Your task to perform on an android device: Empty the shopping cart on target. Search for "razer blade" on target, select the first entry, add it to the cart, then select checkout. Image 0: 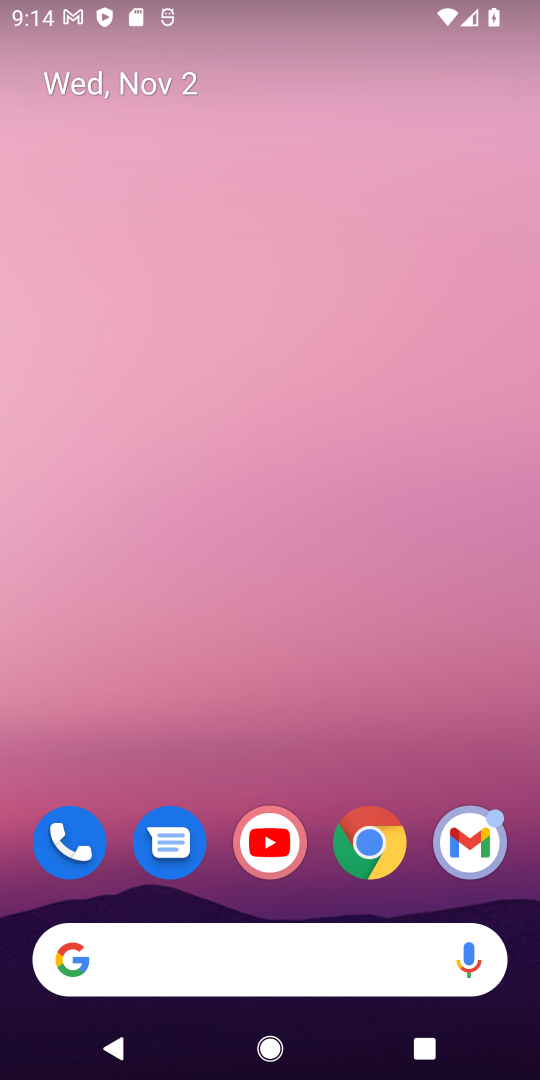
Step 0: drag from (208, 719) to (212, 130)
Your task to perform on an android device: Empty the shopping cart on target. Search for "razer blade" on target, select the first entry, add it to the cart, then select checkout. Image 1: 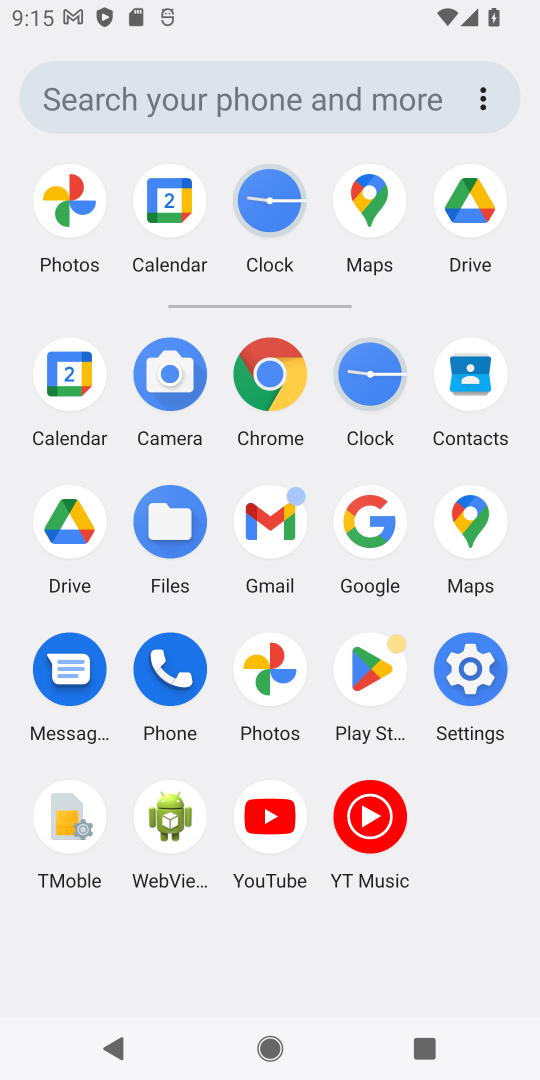
Step 1: click (364, 522)
Your task to perform on an android device: Empty the shopping cart on target. Search for "razer blade" on target, select the first entry, add it to the cart, then select checkout. Image 2: 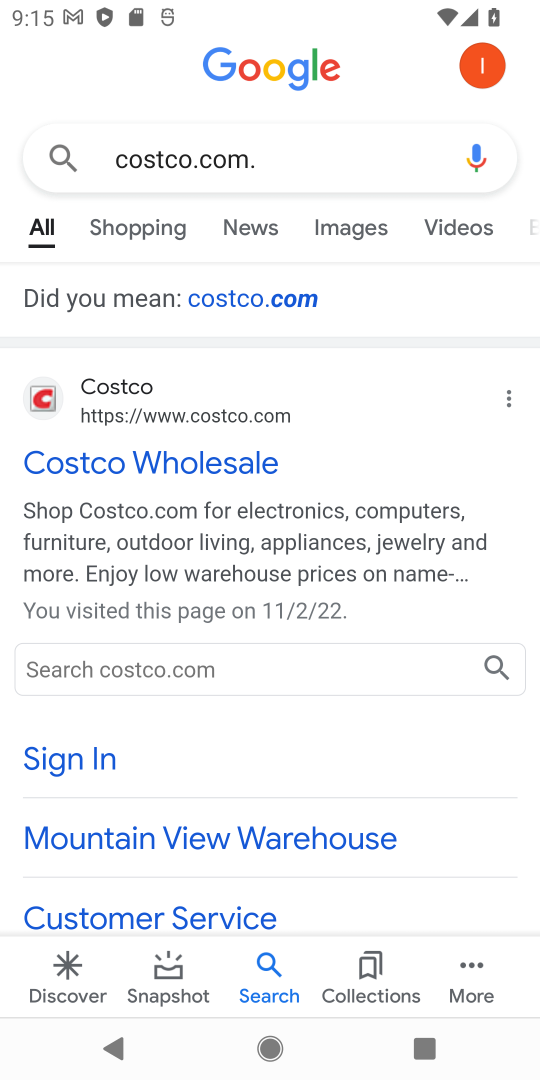
Step 2: click (364, 510)
Your task to perform on an android device: Empty the shopping cart on target. Search for "razer blade" on target, select the first entry, add it to the cart, then select checkout. Image 3: 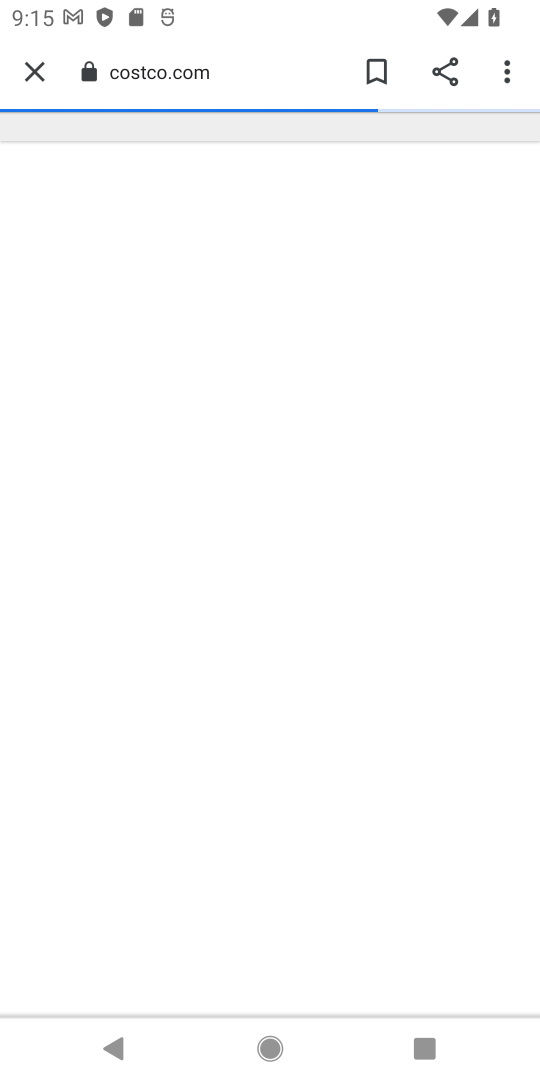
Step 3: click (201, 160)
Your task to perform on an android device: Empty the shopping cart on target. Search for "razer blade" on target, select the first entry, add it to the cart, then select checkout. Image 4: 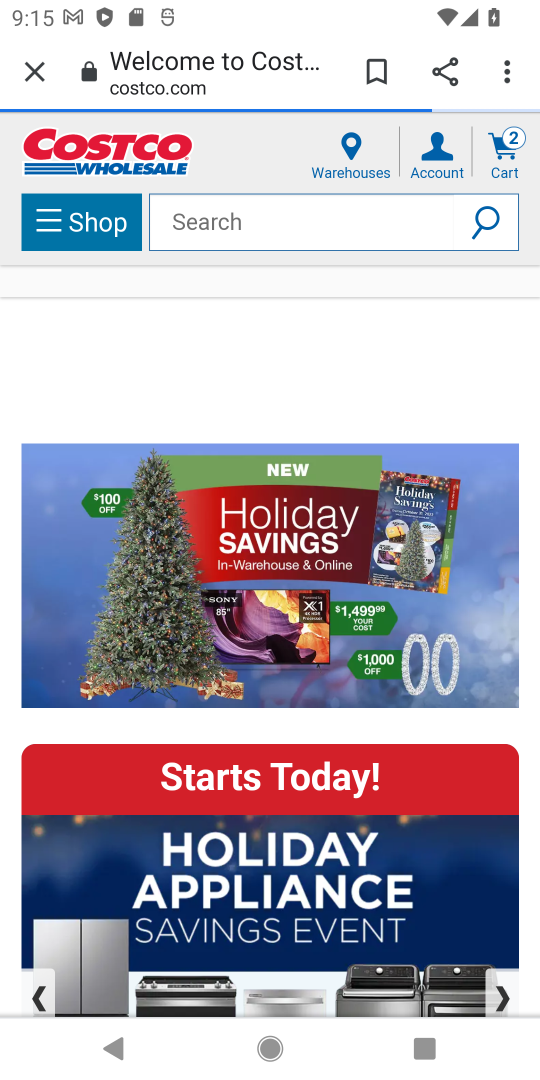
Step 4: press back button
Your task to perform on an android device: Empty the shopping cart on target. Search for "razer blade" on target, select the first entry, add it to the cart, then select checkout. Image 5: 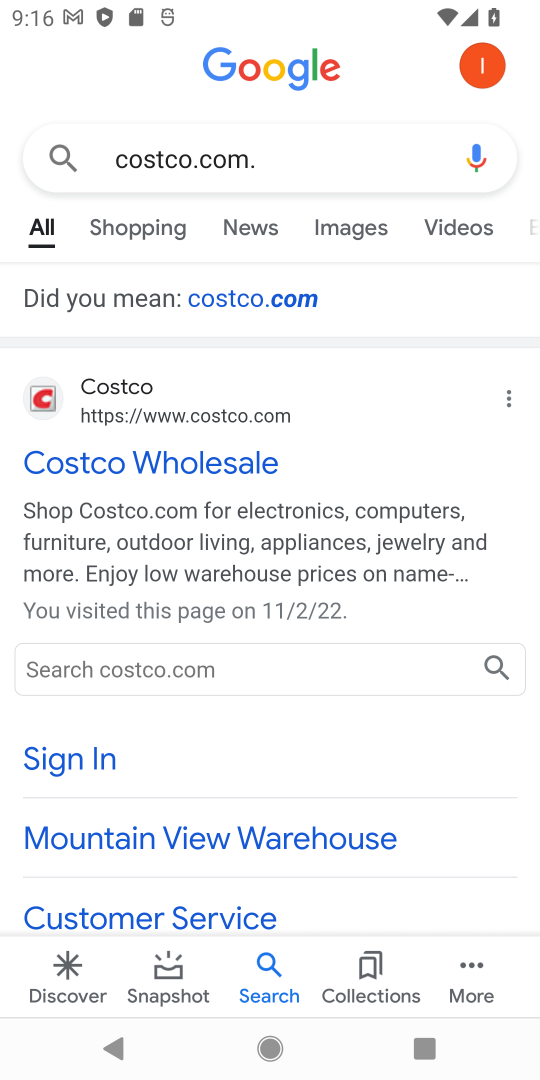
Step 5: click (202, 143)
Your task to perform on an android device: Empty the shopping cart on target. Search for "razer blade" on target, select the first entry, add it to the cart, then select checkout. Image 6: 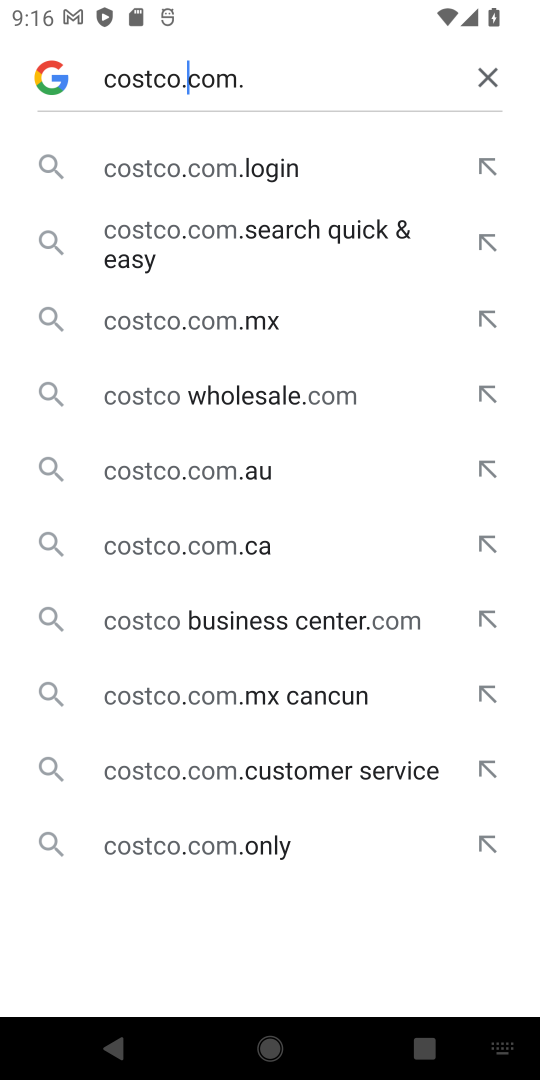
Step 6: click (487, 79)
Your task to perform on an android device: Empty the shopping cart on target. Search for "razer blade" on target, select the first entry, add it to the cart, then select checkout. Image 7: 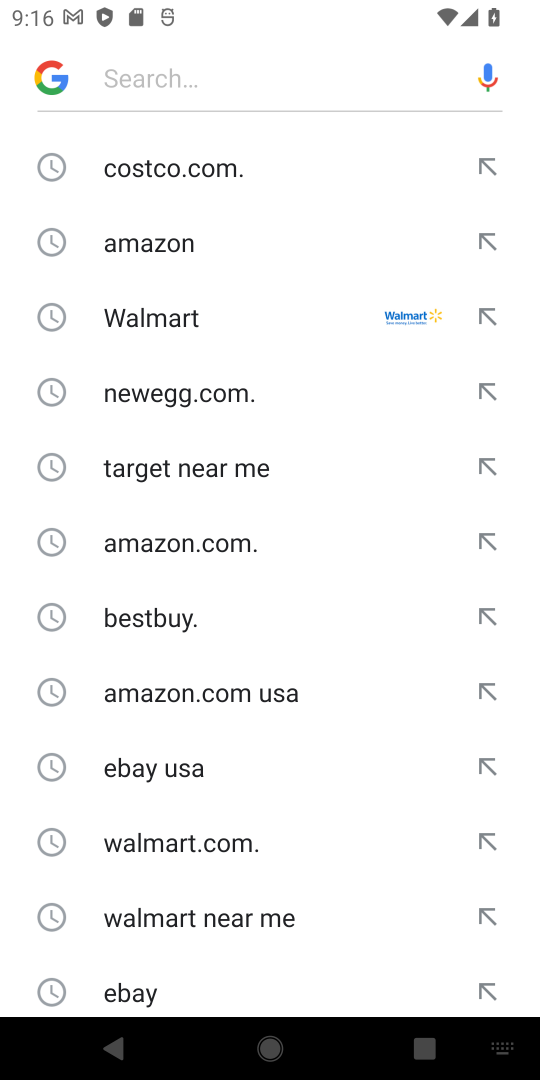
Step 7: click (168, 459)
Your task to perform on an android device: Empty the shopping cart on target. Search for "razer blade" on target, select the first entry, add it to the cart, then select checkout. Image 8: 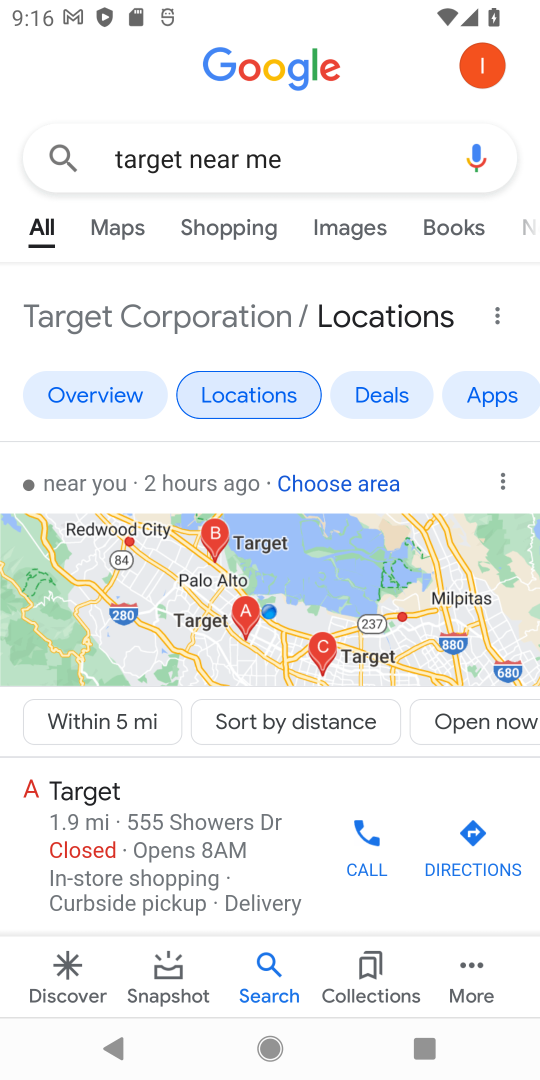
Step 8: drag from (113, 821) to (178, 259)
Your task to perform on an android device: Empty the shopping cart on target. Search for "razer blade" on target, select the first entry, add it to the cart, then select checkout. Image 9: 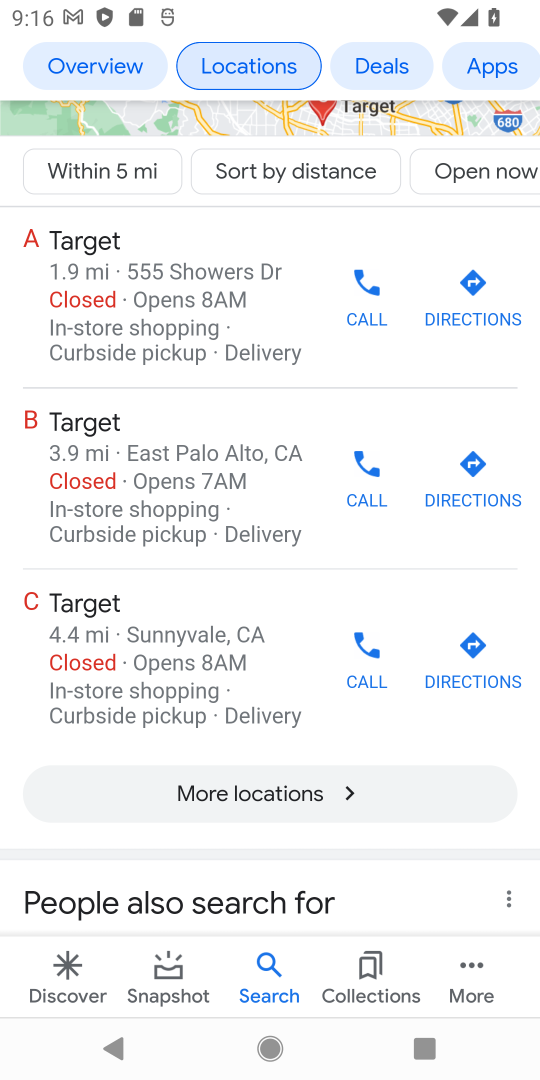
Step 9: drag from (106, 827) to (230, 354)
Your task to perform on an android device: Empty the shopping cart on target. Search for "razer blade" on target, select the first entry, add it to the cart, then select checkout. Image 10: 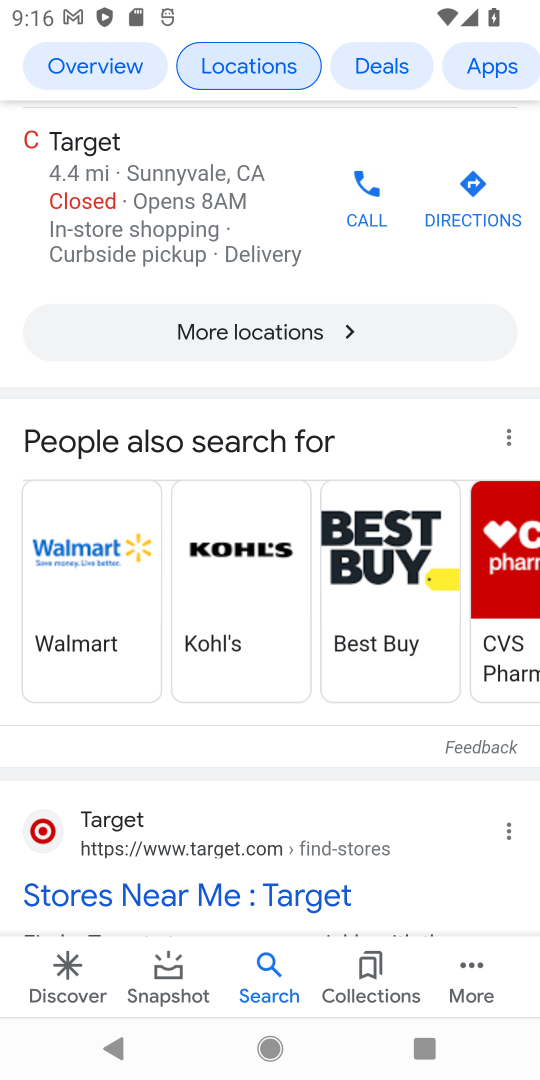
Step 10: click (44, 831)
Your task to perform on an android device: Empty the shopping cart on target. Search for "razer blade" on target, select the first entry, add it to the cart, then select checkout. Image 11: 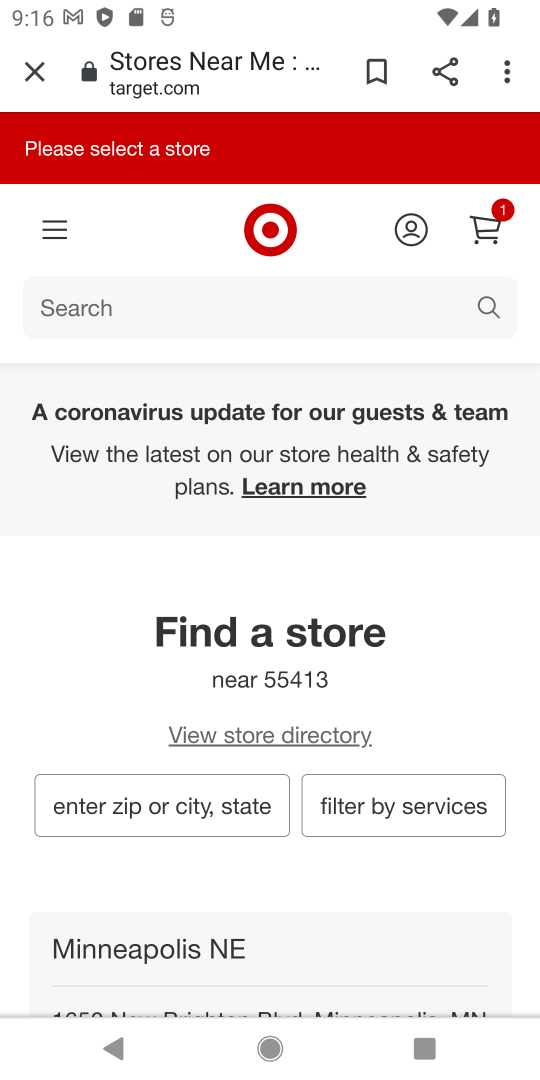
Step 11: click (193, 305)
Your task to perform on an android device: Empty the shopping cart on target. Search for "razer blade" on target, select the first entry, add it to the cart, then select checkout. Image 12: 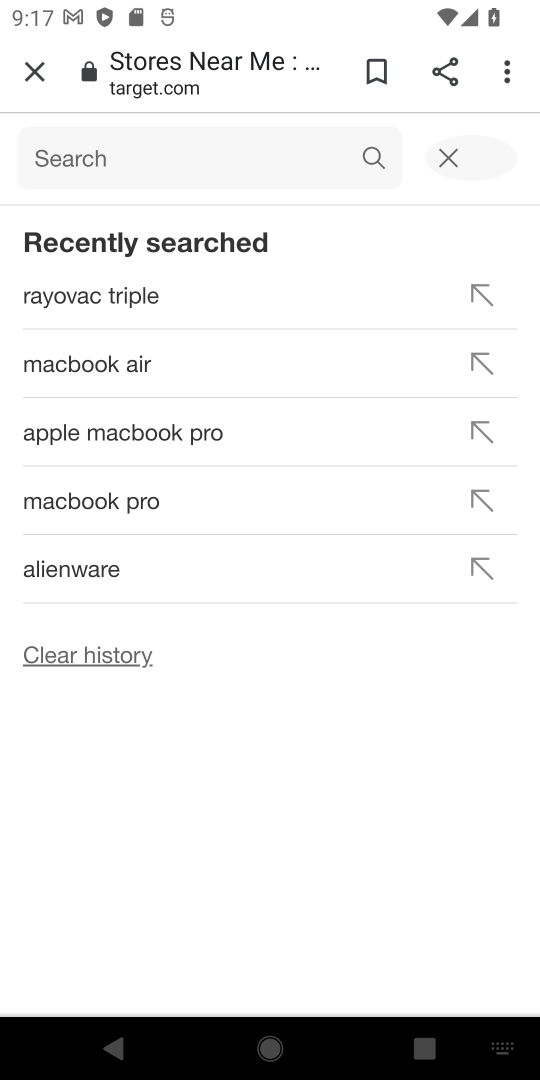
Step 12: click (226, 135)
Your task to perform on an android device: Empty the shopping cart on target. Search for "razer blade" on target, select the first entry, add it to the cart, then select checkout. Image 13: 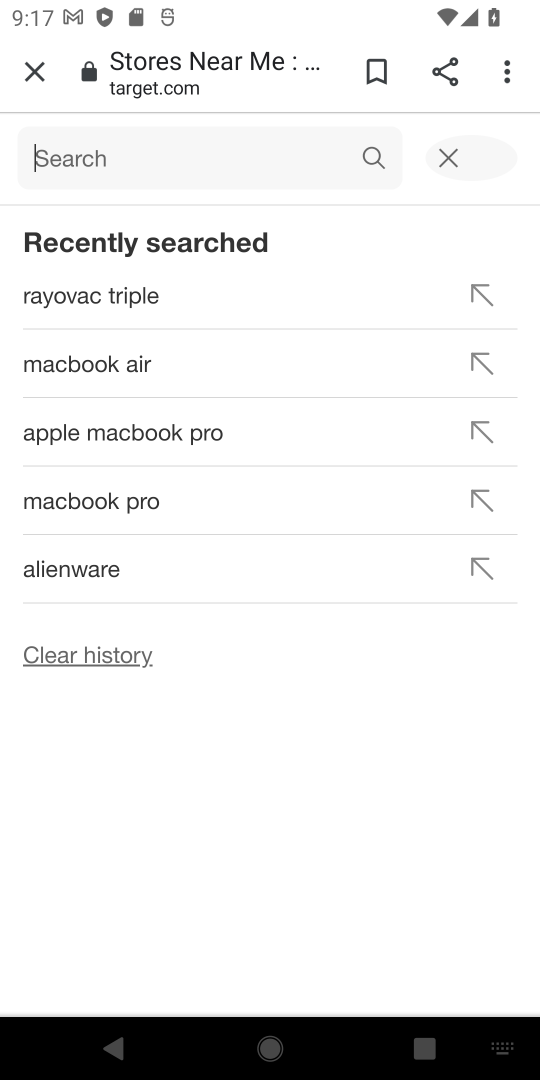
Step 13: type "razer blade "
Your task to perform on an android device: Empty the shopping cart on target. Search for "razer blade" on target, select the first entry, add it to the cart, then select checkout. Image 14: 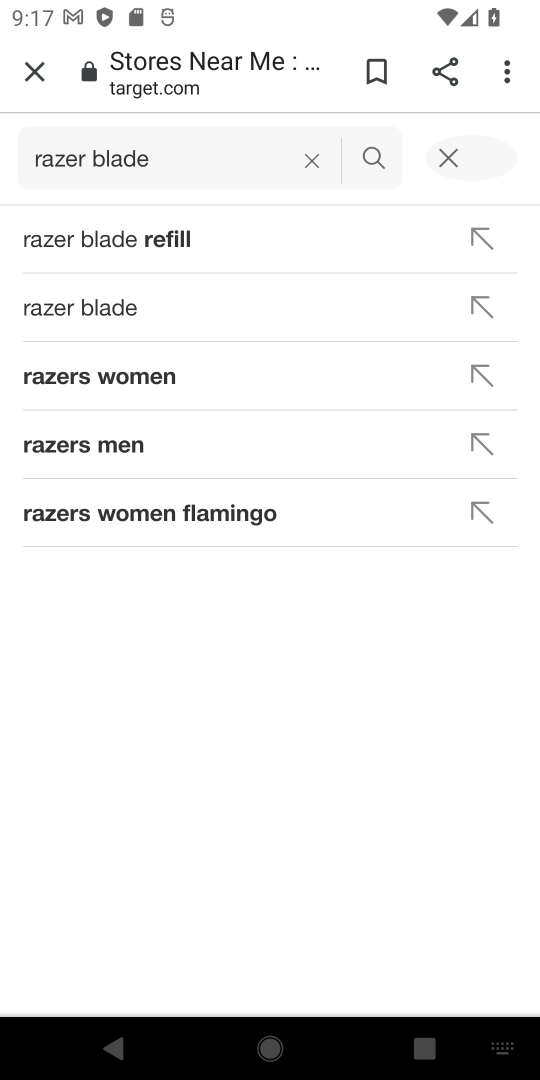
Step 14: click (103, 298)
Your task to perform on an android device: Empty the shopping cart on target. Search for "razer blade" on target, select the first entry, add it to the cart, then select checkout. Image 15: 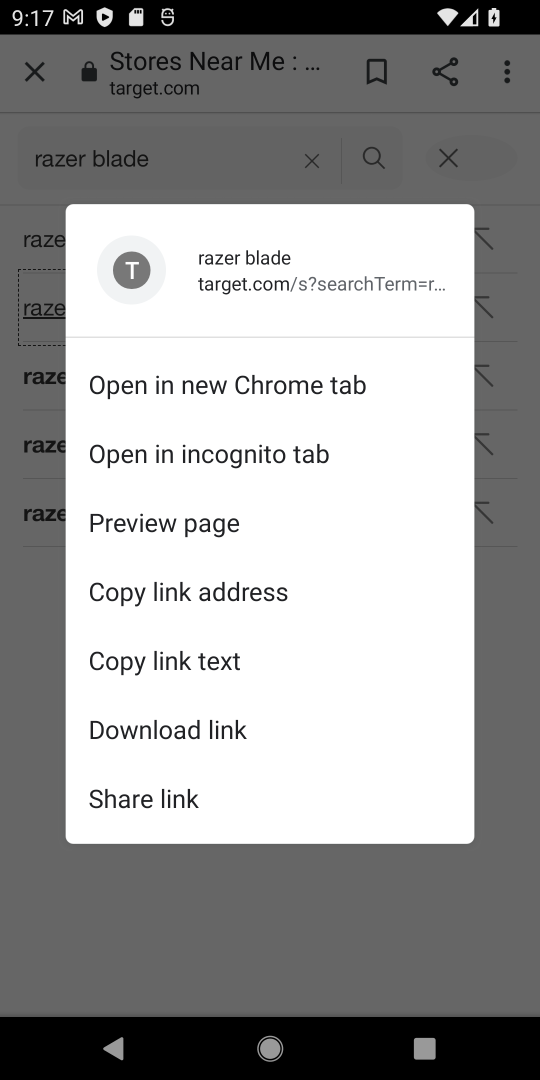
Step 15: click (40, 299)
Your task to perform on an android device: Empty the shopping cart on target. Search for "razer blade" on target, select the first entry, add it to the cart, then select checkout. Image 16: 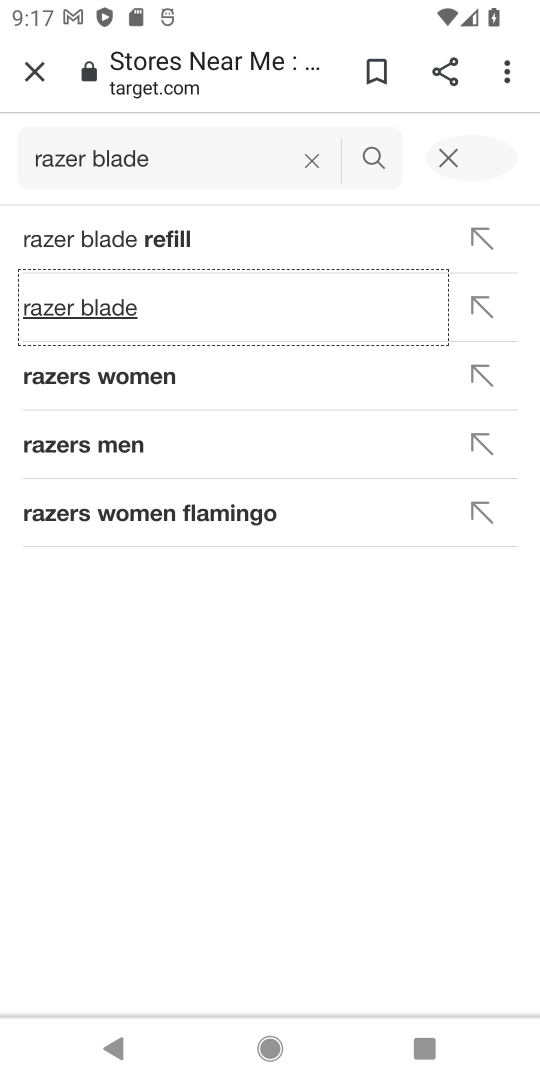
Step 16: click (63, 307)
Your task to perform on an android device: Empty the shopping cart on target. Search for "razer blade" on target, select the first entry, add it to the cart, then select checkout. Image 17: 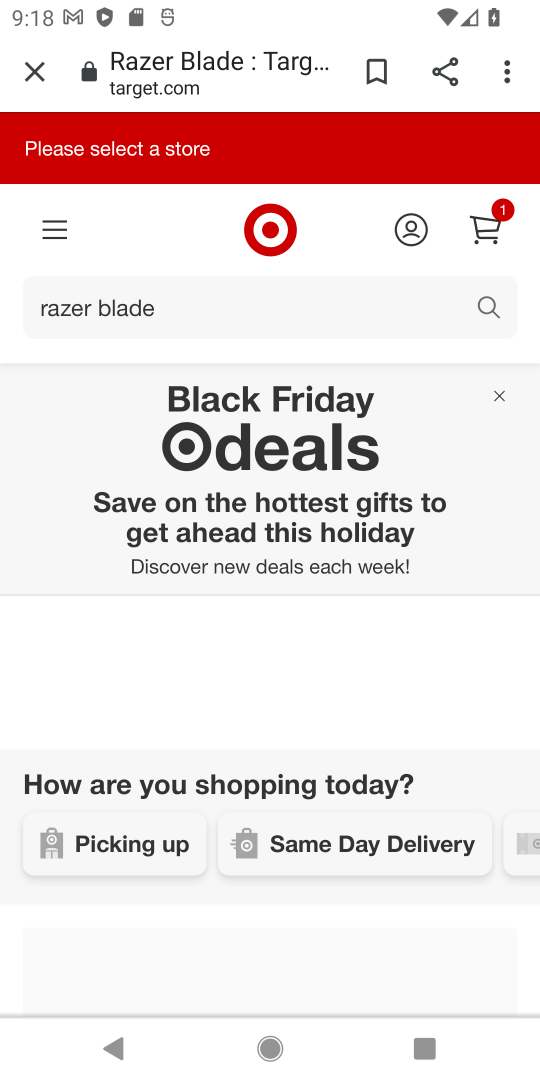
Step 17: drag from (262, 812) to (334, 318)
Your task to perform on an android device: Empty the shopping cart on target. Search for "razer blade" on target, select the first entry, add it to the cart, then select checkout. Image 18: 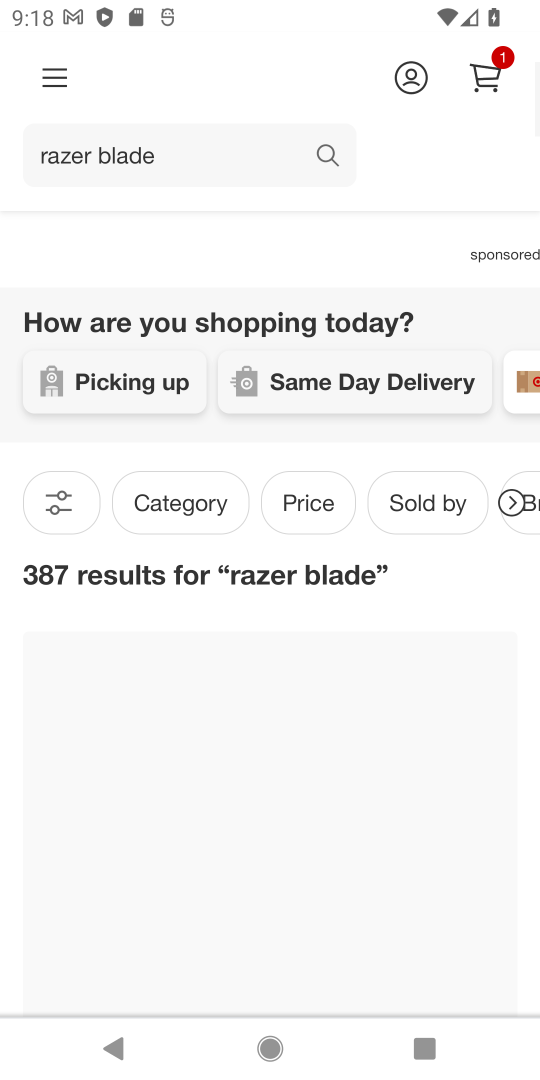
Step 18: drag from (258, 916) to (331, 391)
Your task to perform on an android device: Empty the shopping cart on target. Search for "razer blade" on target, select the first entry, add it to the cart, then select checkout. Image 19: 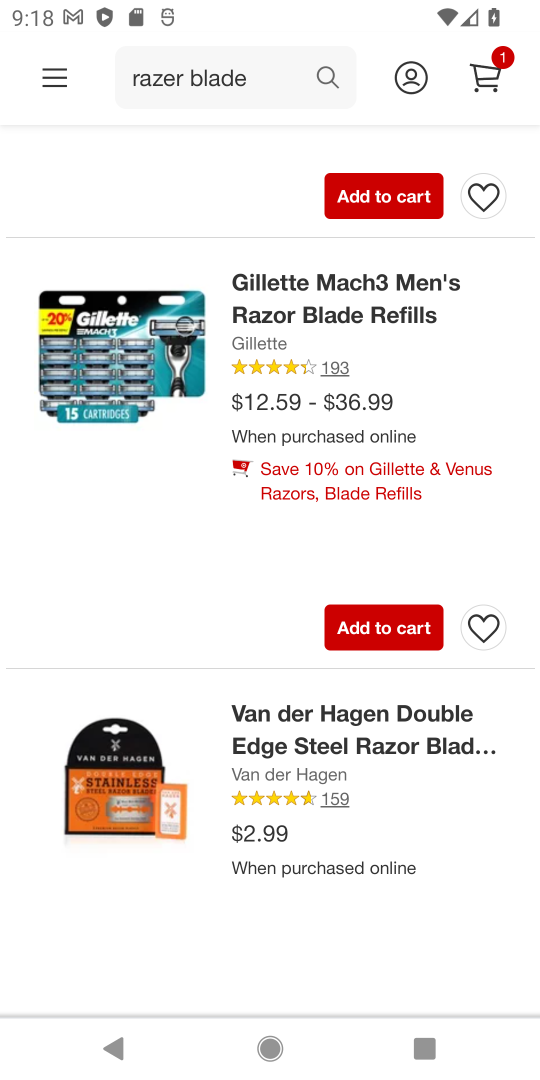
Step 19: click (376, 189)
Your task to perform on an android device: Empty the shopping cart on target. Search for "razer blade" on target, select the first entry, add it to the cart, then select checkout. Image 20: 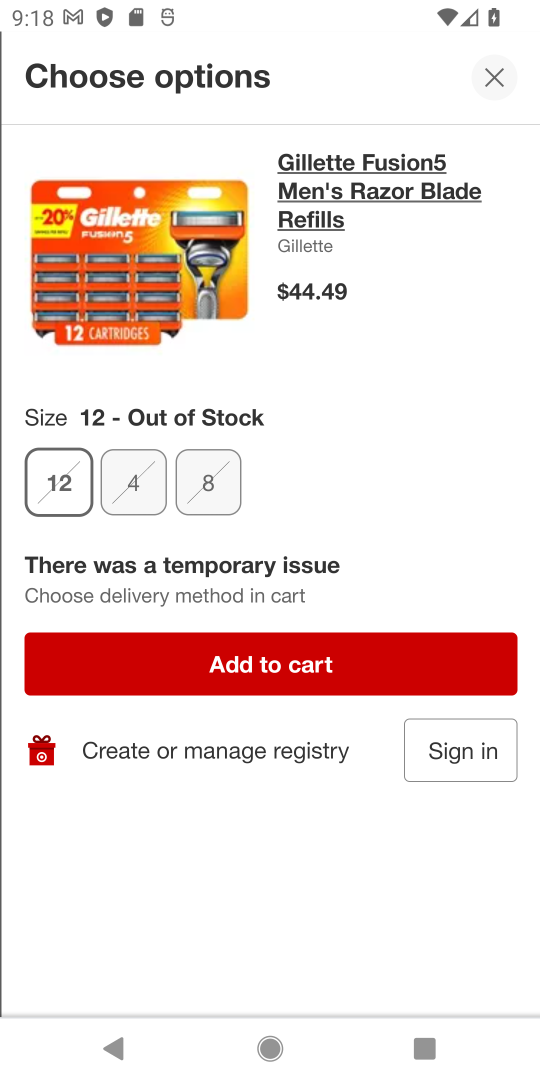
Step 20: task complete